Your task to perform on an android device: Go to location settings Image 0: 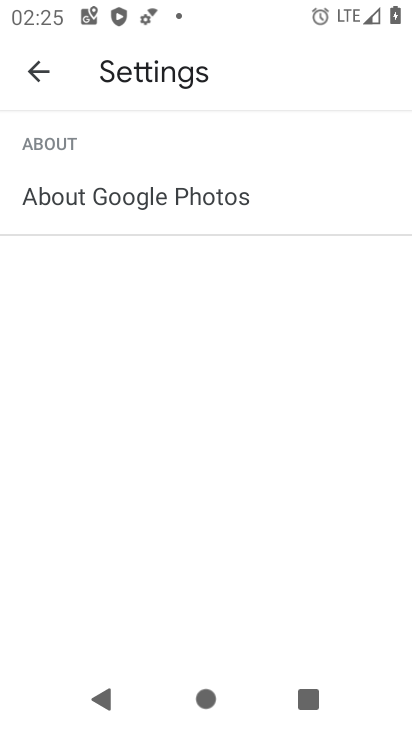
Step 0: press home button
Your task to perform on an android device: Go to location settings Image 1: 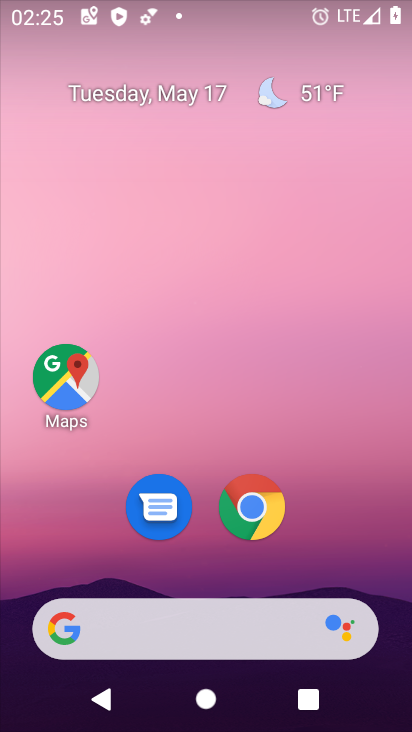
Step 1: drag from (301, 535) to (322, 150)
Your task to perform on an android device: Go to location settings Image 2: 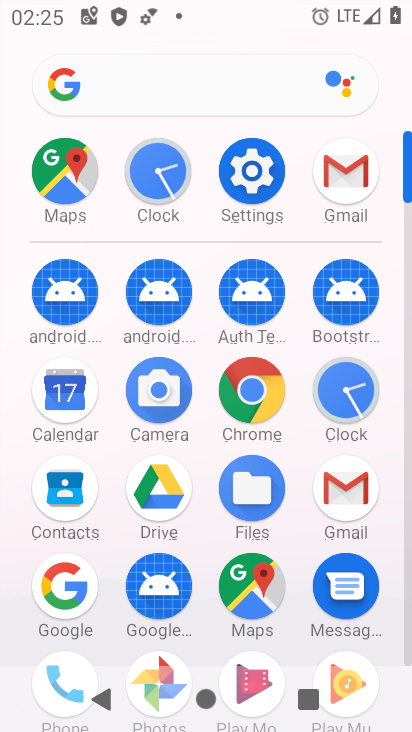
Step 2: click (257, 181)
Your task to perform on an android device: Go to location settings Image 3: 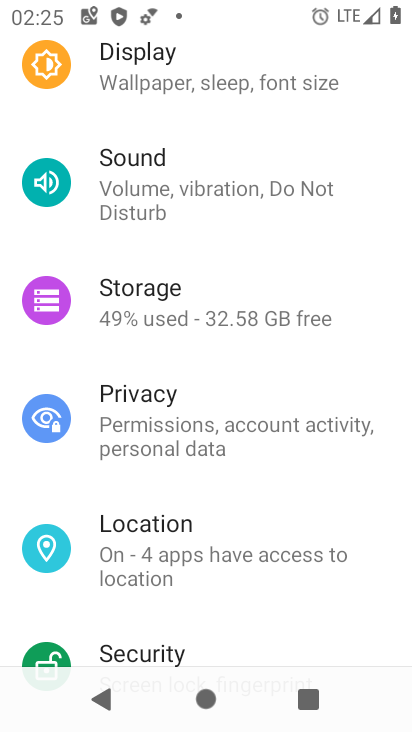
Step 3: click (152, 545)
Your task to perform on an android device: Go to location settings Image 4: 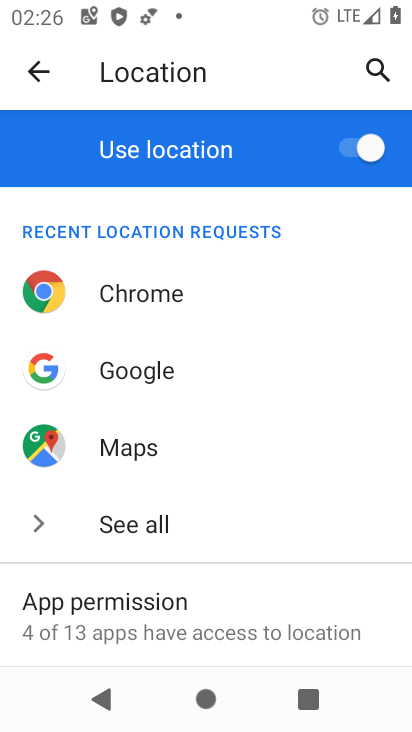
Step 4: task complete